Your task to perform on an android device: allow notifications from all sites in the chrome app Image 0: 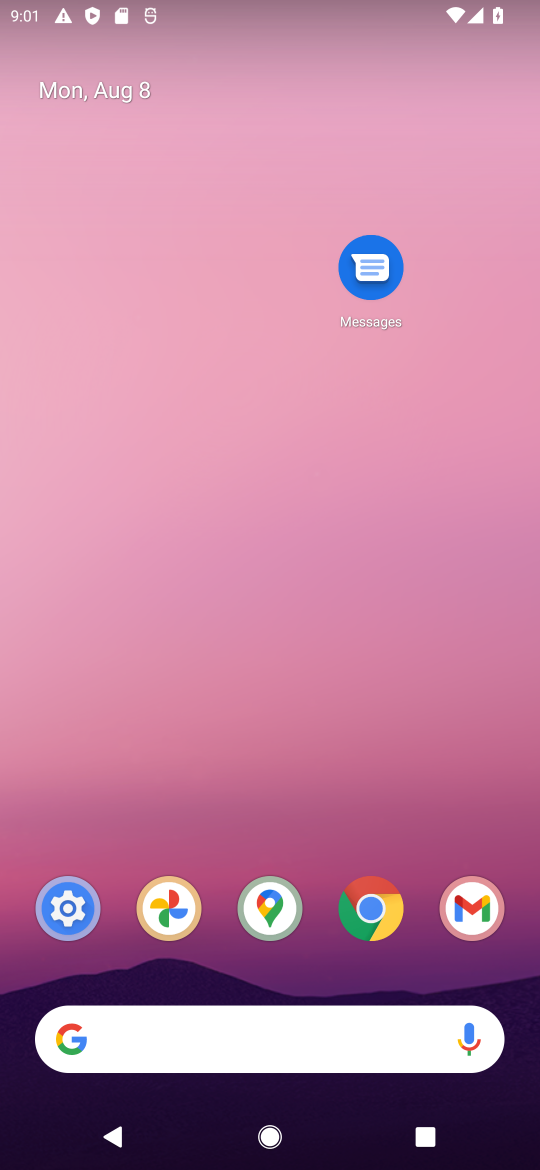
Step 0: click (353, 904)
Your task to perform on an android device: allow notifications from all sites in the chrome app Image 1: 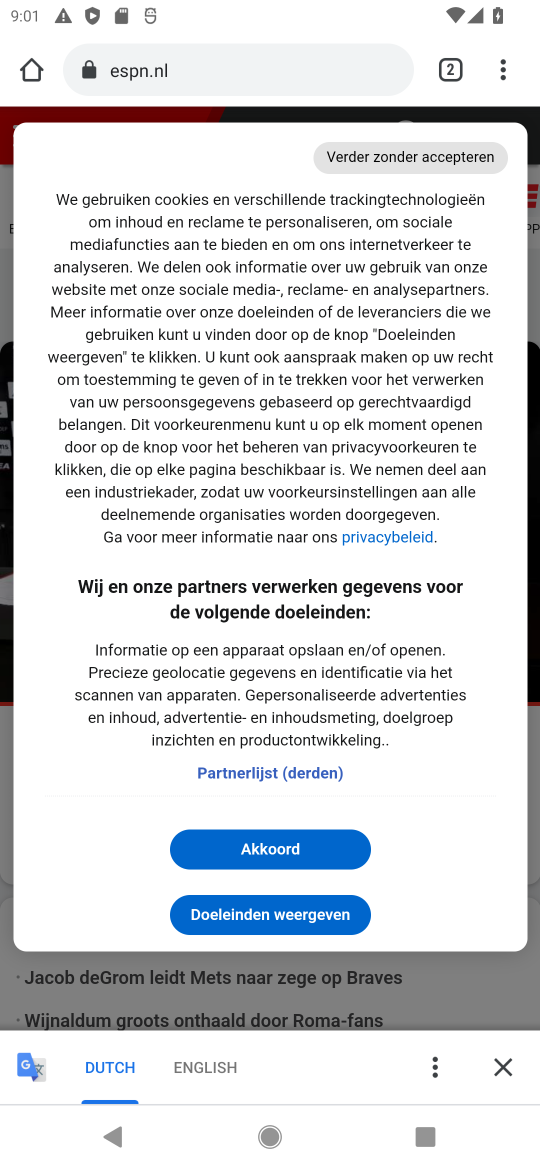
Step 1: click (502, 77)
Your task to perform on an android device: allow notifications from all sites in the chrome app Image 2: 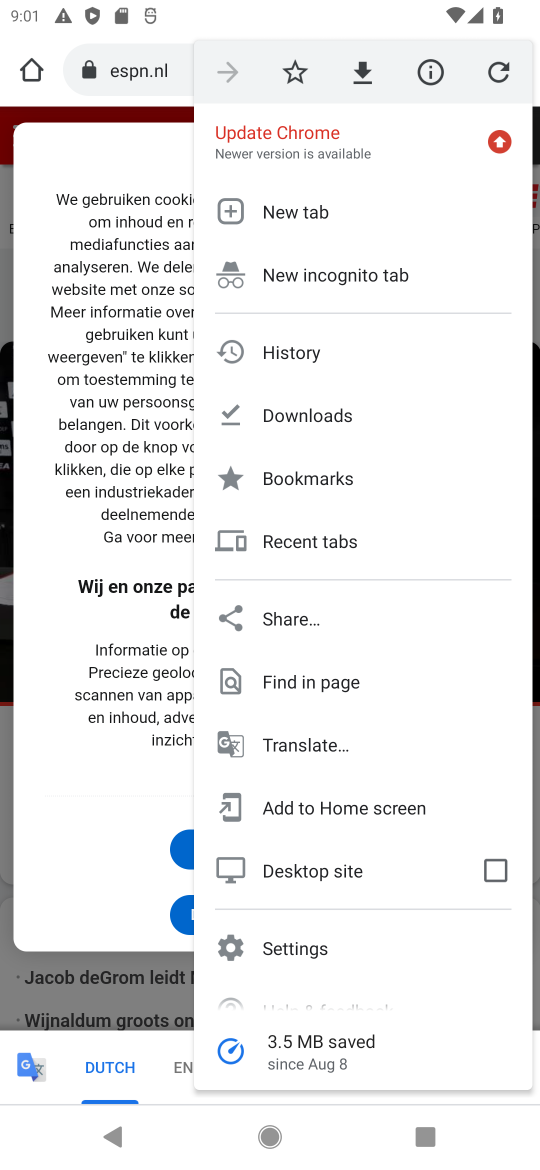
Step 2: click (334, 953)
Your task to perform on an android device: allow notifications from all sites in the chrome app Image 3: 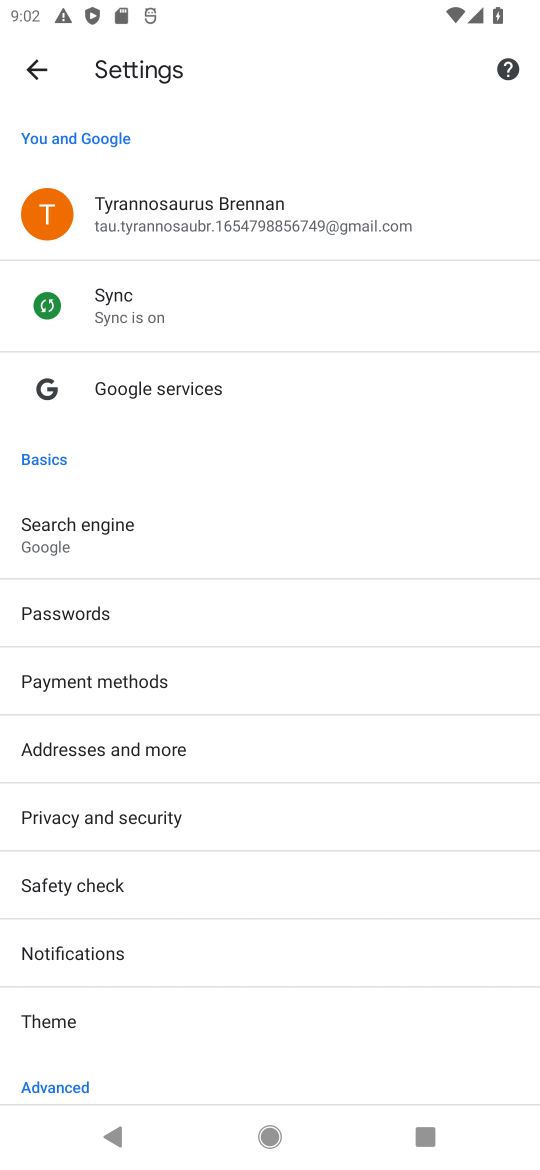
Step 3: click (138, 966)
Your task to perform on an android device: allow notifications from all sites in the chrome app Image 4: 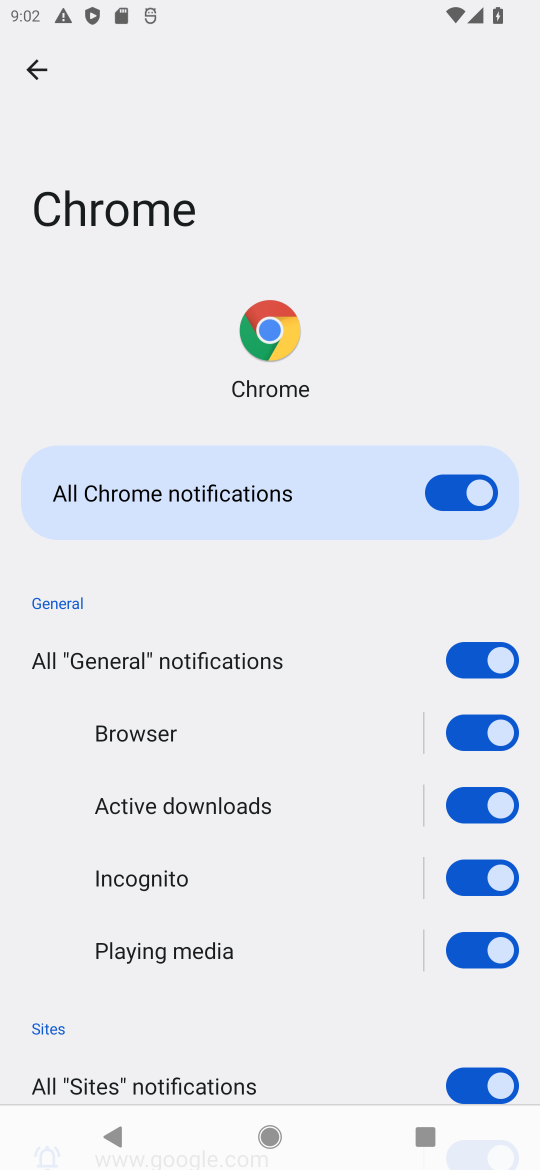
Step 4: task complete